Your task to perform on an android device: turn on data saver in the chrome app Image 0: 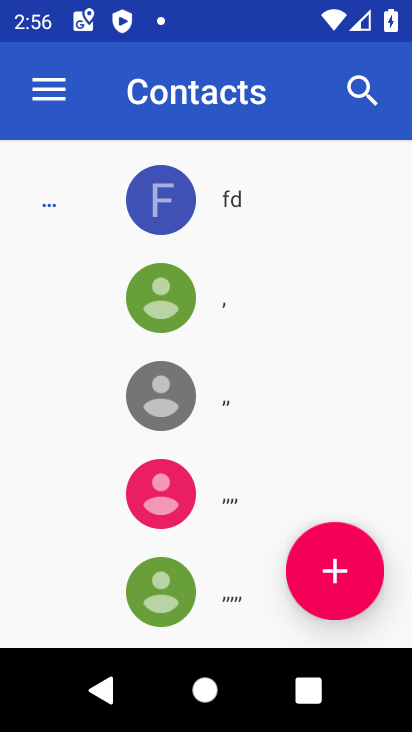
Step 0: press home button
Your task to perform on an android device: turn on data saver in the chrome app Image 1: 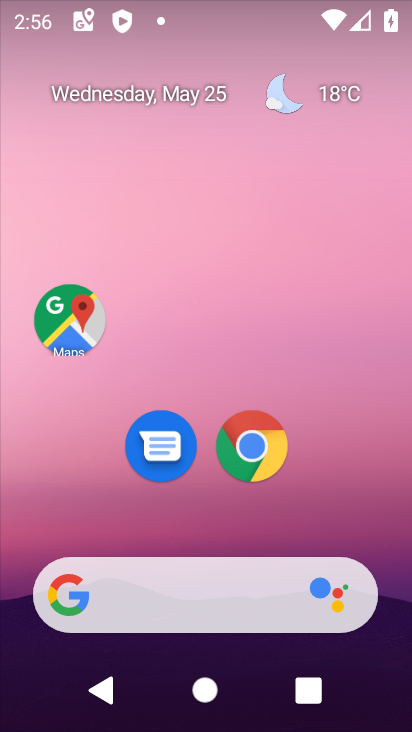
Step 1: click (248, 445)
Your task to perform on an android device: turn on data saver in the chrome app Image 2: 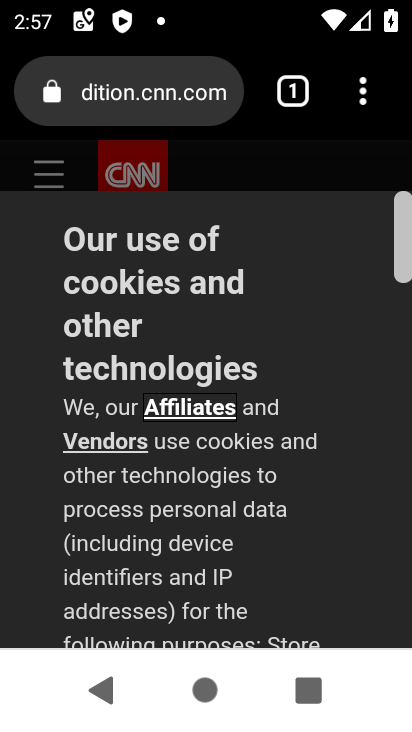
Step 2: drag from (355, 91) to (122, 475)
Your task to perform on an android device: turn on data saver in the chrome app Image 3: 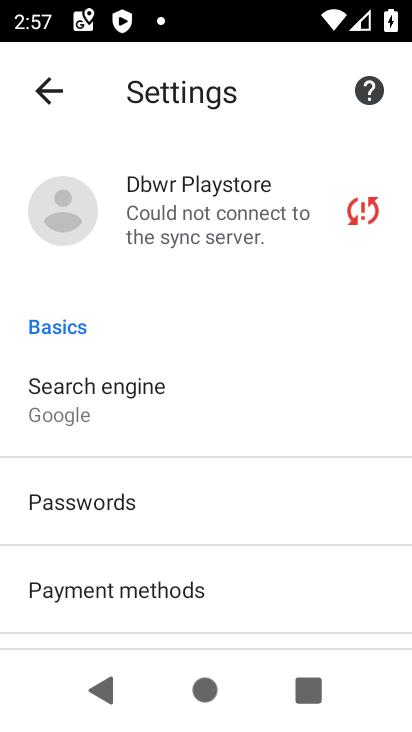
Step 3: drag from (200, 564) to (177, 165)
Your task to perform on an android device: turn on data saver in the chrome app Image 4: 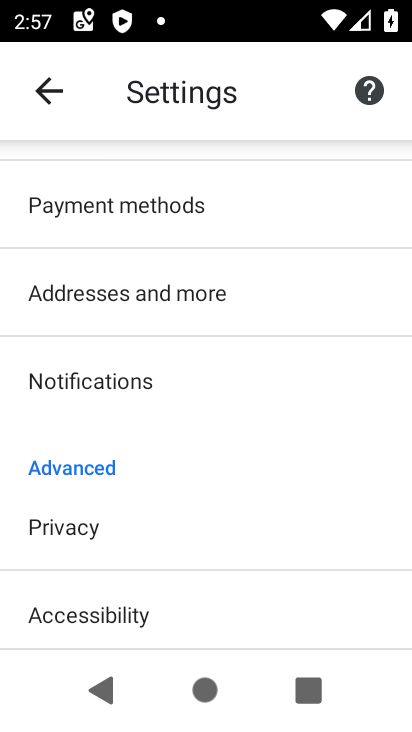
Step 4: drag from (194, 567) to (187, 2)
Your task to perform on an android device: turn on data saver in the chrome app Image 5: 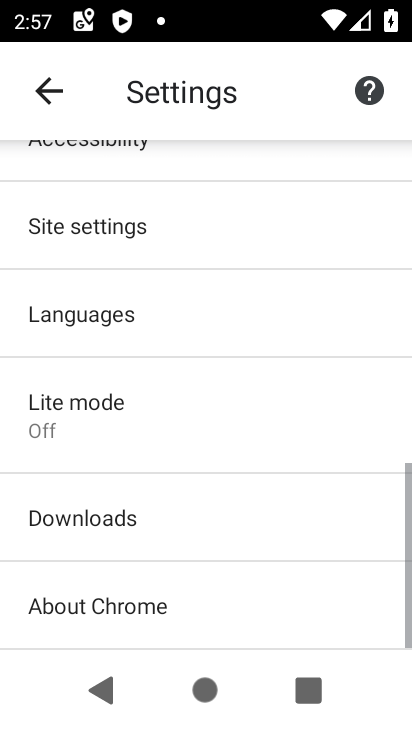
Step 5: click (167, 437)
Your task to perform on an android device: turn on data saver in the chrome app Image 6: 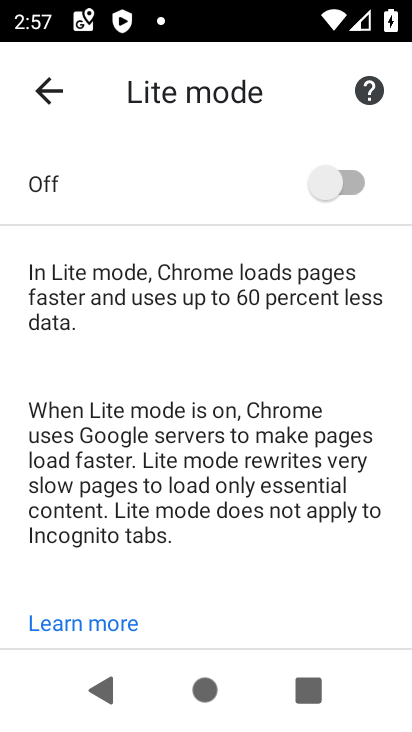
Step 6: click (340, 189)
Your task to perform on an android device: turn on data saver in the chrome app Image 7: 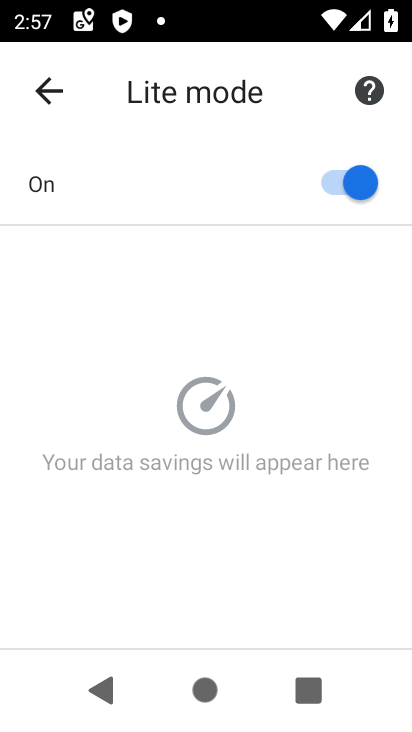
Step 7: task complete